Your task to perform on an android device: Open display settings Image 0: 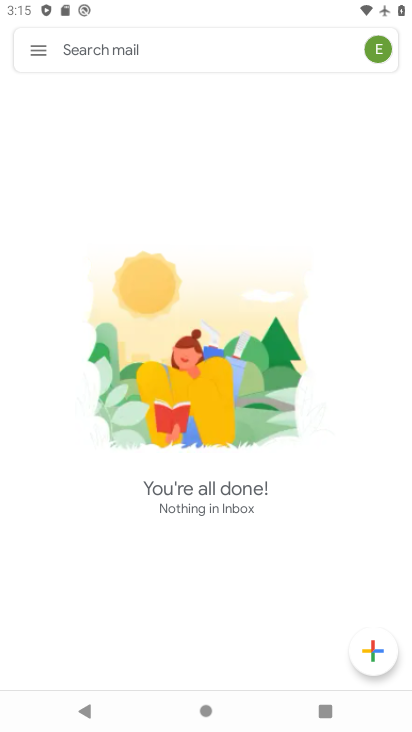
Step 0: press home button
Your task to perform on an android device: Open display settings Image 1: 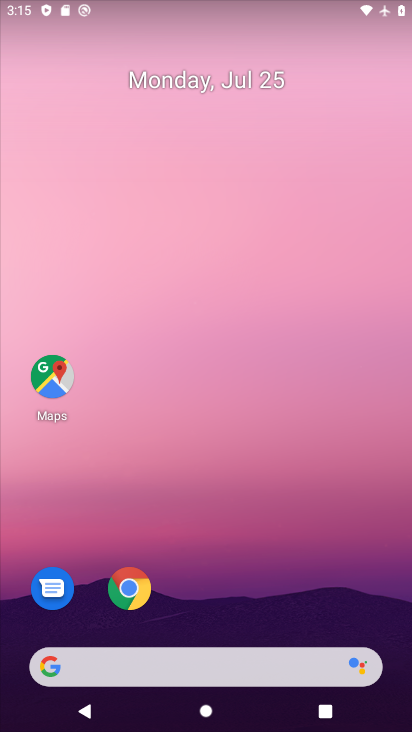
Step 1: drag from (225, 701) to (225, 157)
Your task to perform on an android device: Open display settings Image 2: 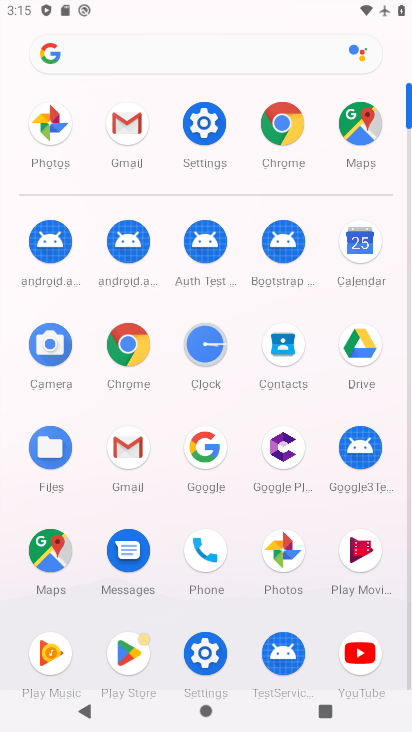
Step 2: click (204, 121)
Your task to perform on an android device: Open display settings Image 3: 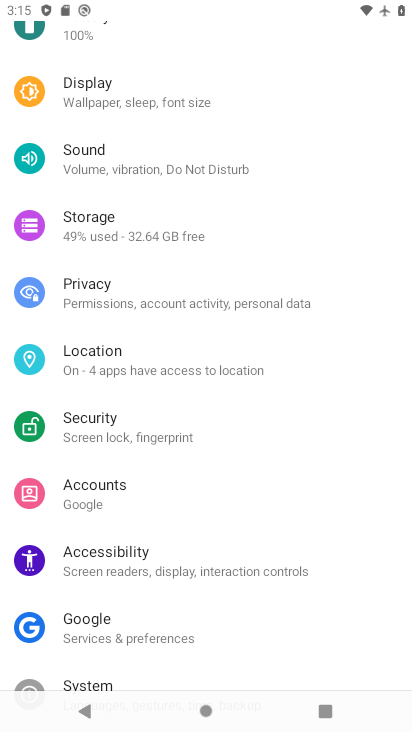
Step 3: click (91, 94)
Your task to perform on an android device: Open display settings Image 4: 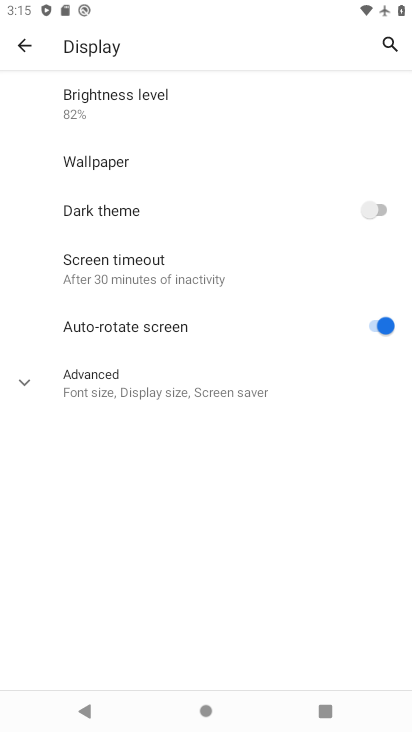
Step 4: task complete